Your task to perform on an android device: open app "LinkedIn" (install if not already installed) and enter user name: "dirt@inbox.com" and password: "receptionist" Image 0: 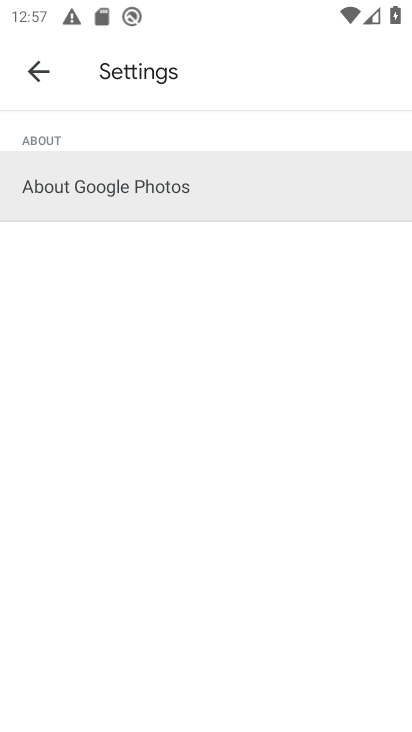
Step 0: press home button
Your task to perform on an android device: open app "LinkedIn" (install if not already installed) and enter user name: "dirt@inbox.com" and password: "receptionist" Image 1: 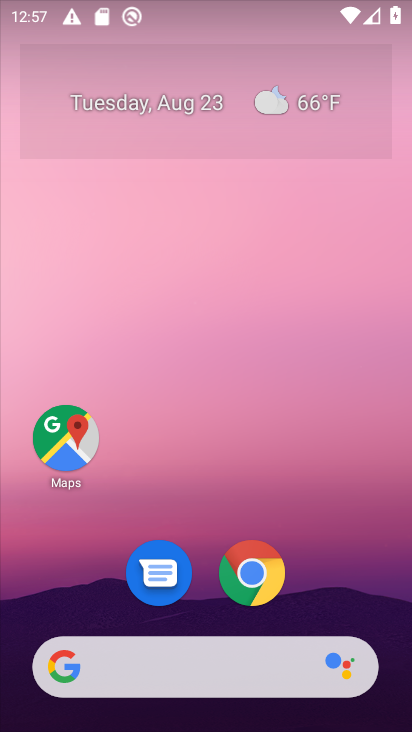
Step 1: drag from (209, 497) to (249, 181)
Your task to perform on an android device: open app "LinkedIn" (install if not already installed) and enter user name: "dirt@inbox.com" and password: "receptionist" Image 2: 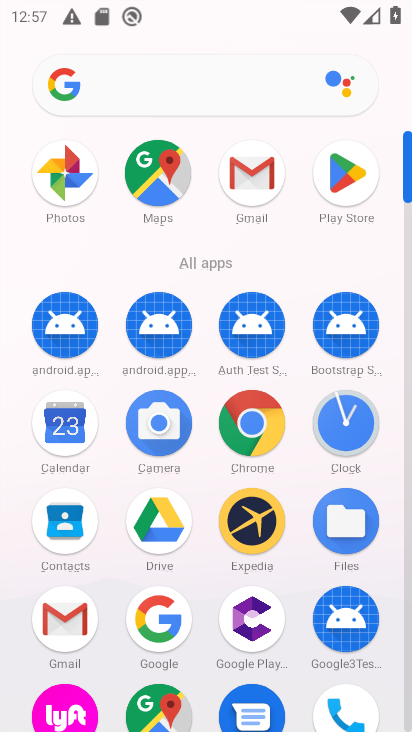
Step 2: click (346, 200)
Your task to perform on an android device: open app "LinkedIn" (install if not already installed) and enter user name: "dirt@inbox.com" and password: "receptionist" Image 3: 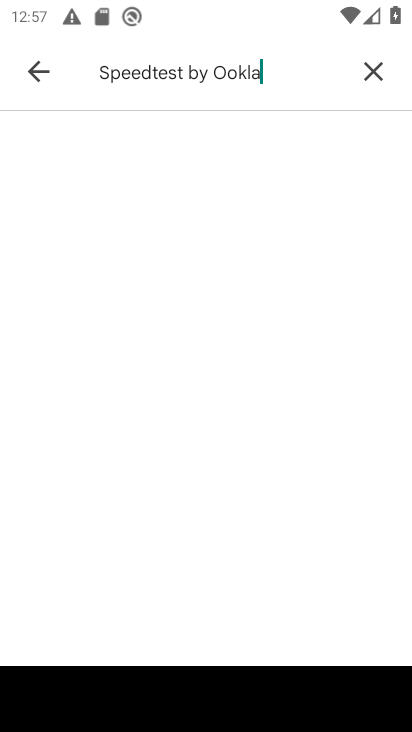
Step 3: click (360, 75)
Your task to perform on an android device: open app "LinkedIn" (install if not already installed) and enter user name: "dirt@inbox.com" and password: "receptionist" Image 4: 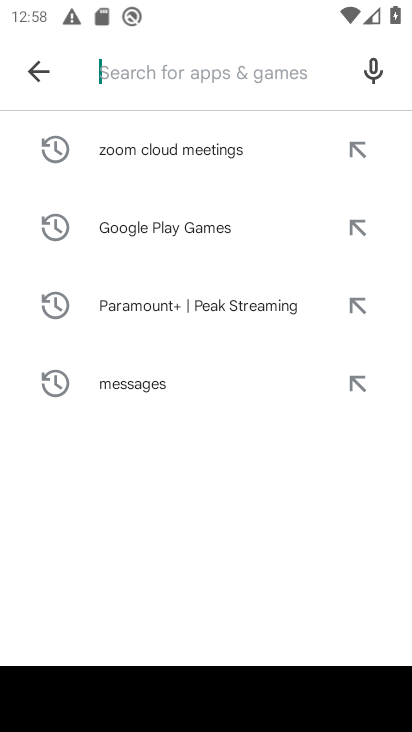
Step 4: type "LinkedIn"
Your task to perform on an android device: open app "LinkedIn" (install if not already installed) and enter user name: "dirt@inbox.com" and password: "receptionist" Image 5: 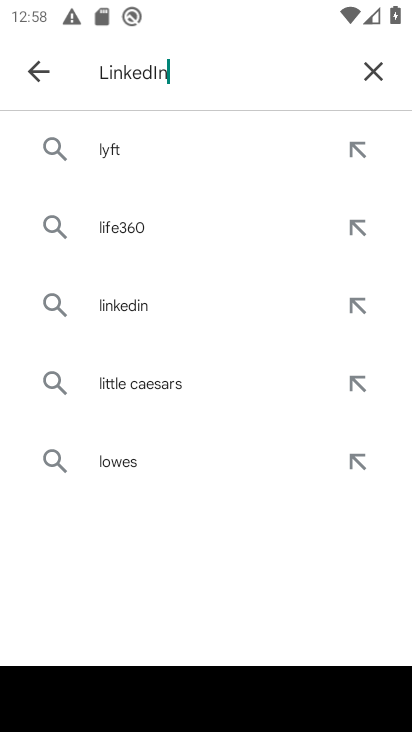
Step 5: type ""
Your task to perform on an android device: open app "LinkedIn" (install if not already installed) and enter user name: "dirt@inbox.com" and password: "receptionist" Image 6: 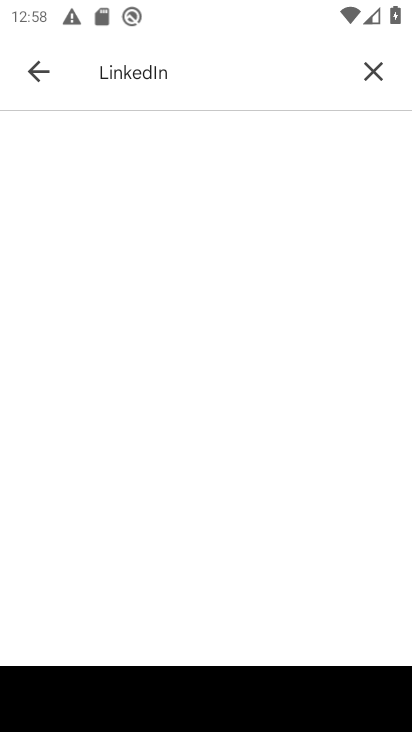
Step 6: click (247, 70)
Your task to perform on an android device: open app "LinkedIn" (install if not already installed) and enter user name: "dirt@inbox.com" and password: "receptionist" Image 7: 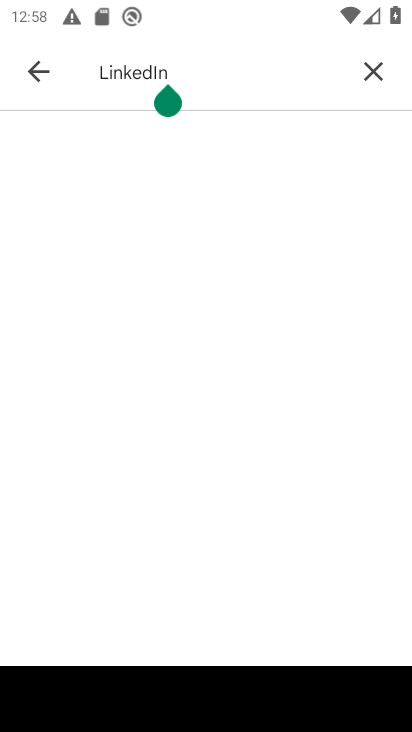
Step 7: task complete